Your task to perform on an android device: turn on notifications settings in the gmail app Image 0: 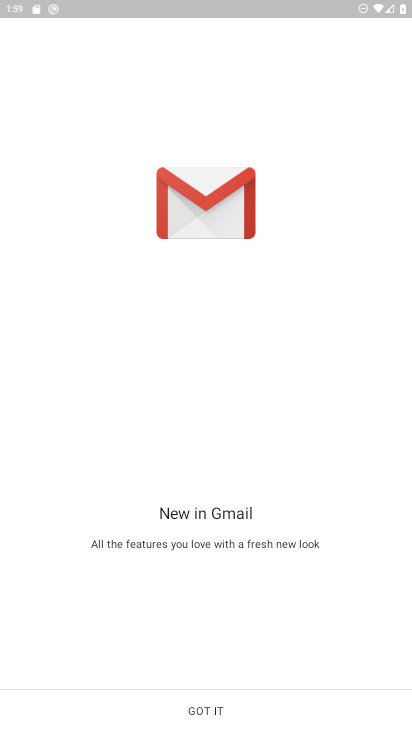
Step 0: click (204, 716)
Your task to perform on an android device: turn on notifications settings in the gmail app Image 1: 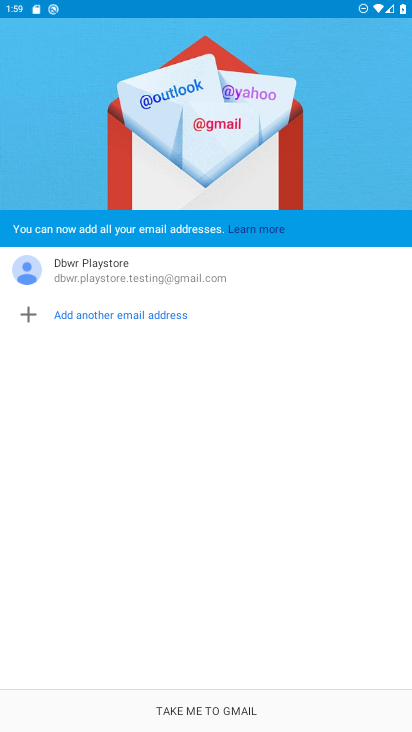
Step 1: click (204, 716)
Your task to perform on an android device: turn on notifications settings in the gmail app Image 2: 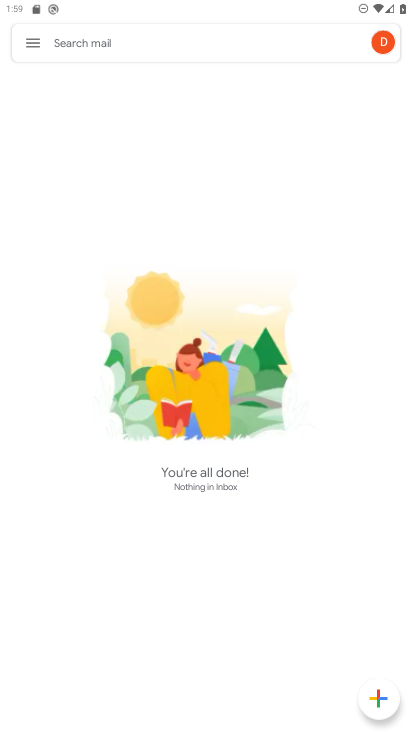
Step 2: click (31, 52)
Your task to perform on an android device: turn on notifications settings in the gmail app Image 3: 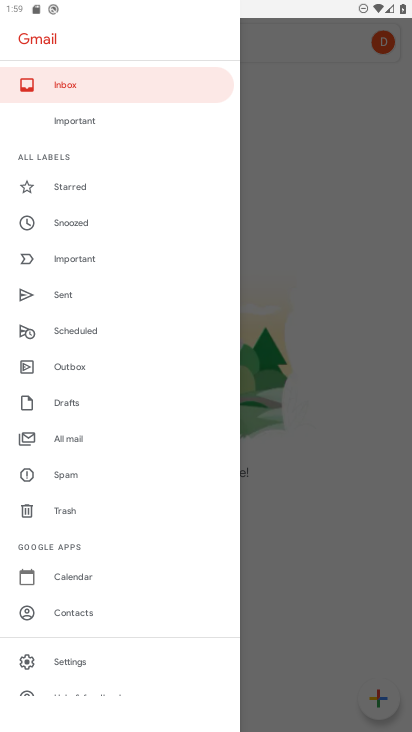
Step 3: click (116, 666)
Your task to perform on an android device: turn on notifications settings in the gmail app Image 4: 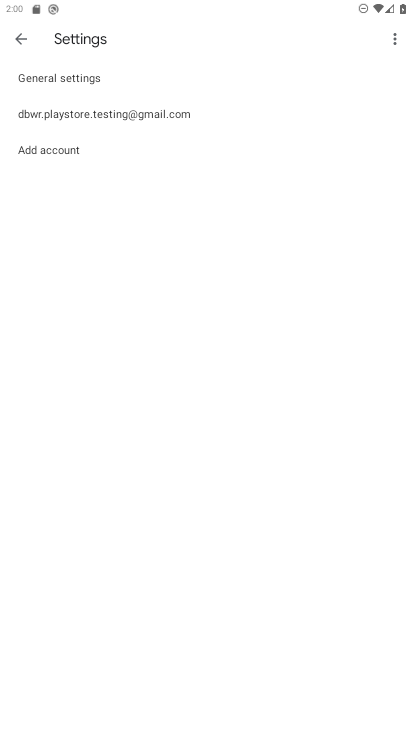
Step 4: click (200, 117)
Your task to perform on an android device: turn on notifications settings in the gmail app Image 5: 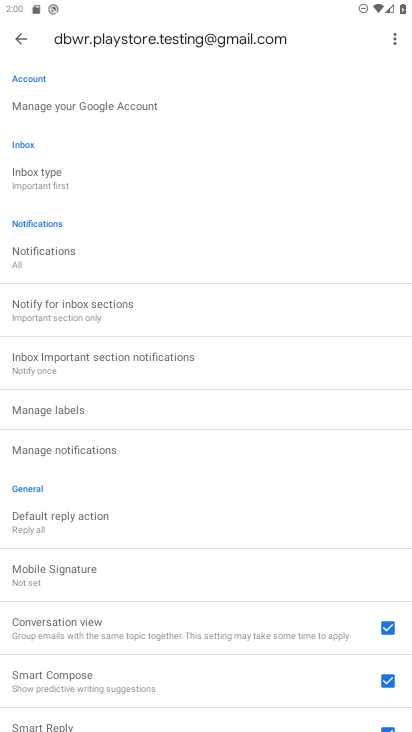
Step 5: click (149, 459)
Your task to perform on an android device: turn on notifications settings in the gmail app Image 6: 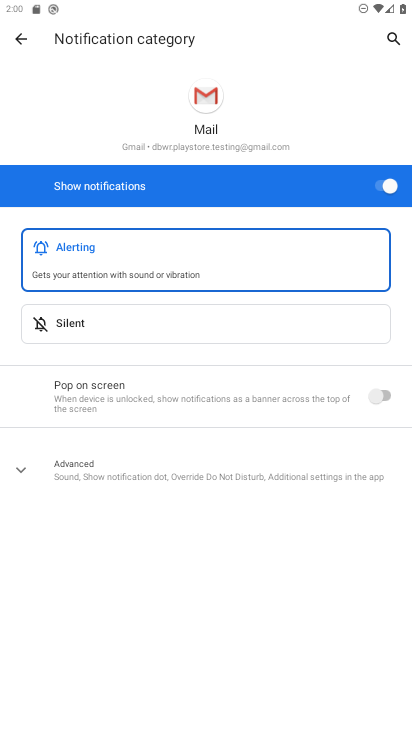
Step 6: task complete